Your task to perform on an android device: Open sound settings Image 0: 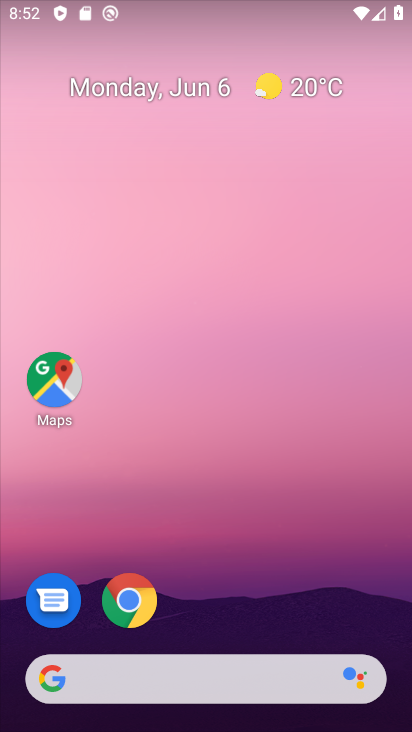
Step 0: drag from (30, 617) to (314, 115)
Your task to perform on an android device: Open sound settings Image 1: 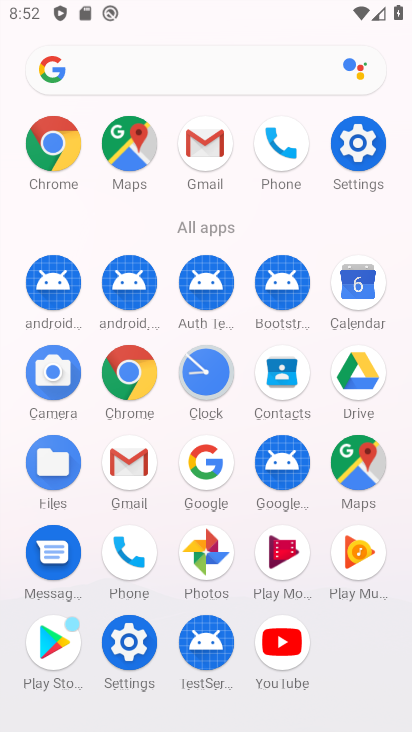
Step 1: click (364, 148)
Your task to perform on an android device: Open sound settings Image 2: 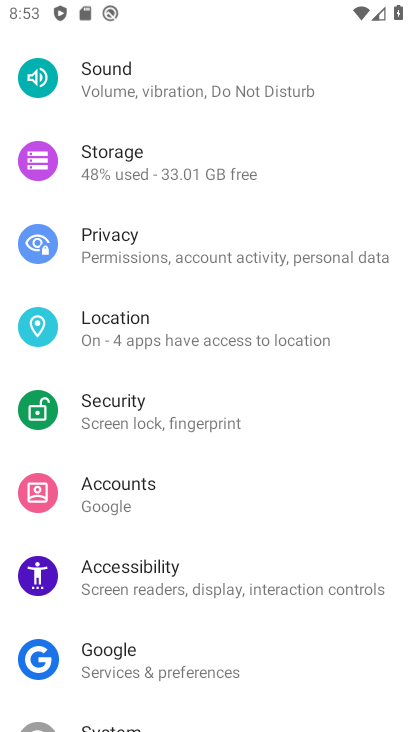
Step 2: click (120, 78)
Your task to perform on an android device: Open sound settings Image 3: 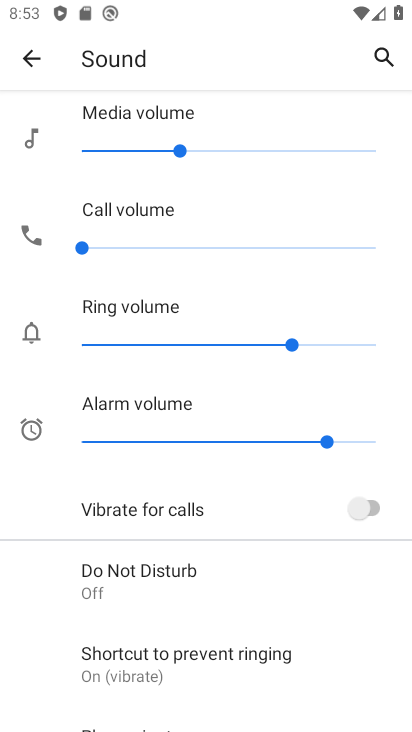
Step 3: task complete